Your task to perform on an android device: set the stopwatch Image 0: 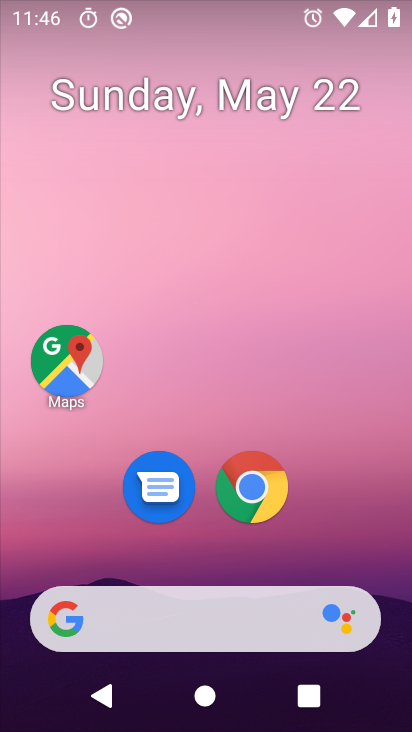
Step 0: drag from (337, 513) to (340, 238)
Your task to perform on an android device: set the stopwatch Image 1: 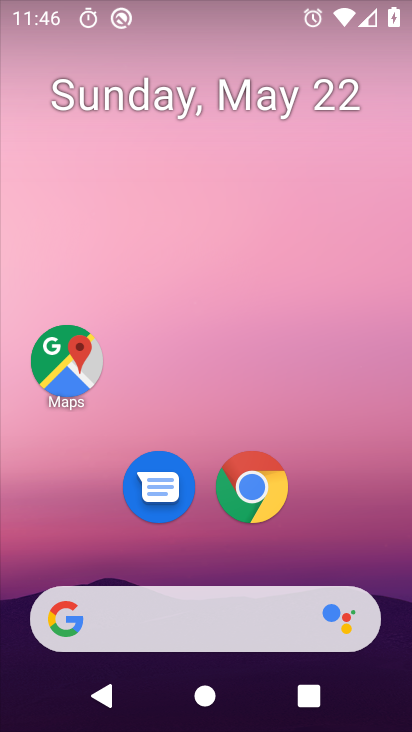
Step 1: drag from (331, 547) to (322, 182)
Your task to perform on an android device: set the stopwatch Image 2: 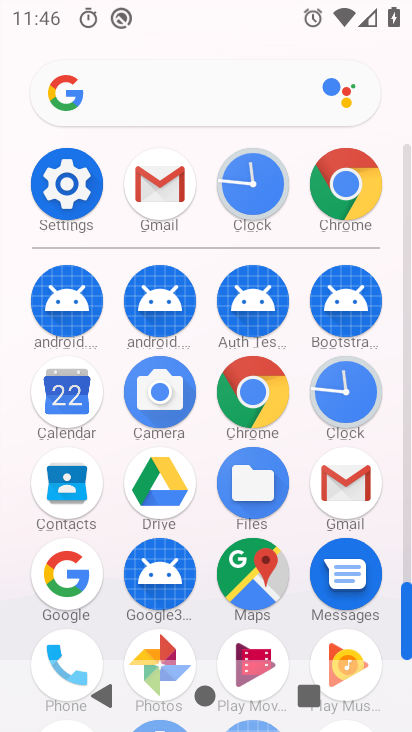
Step 2: click (350, 411)
Your task to perform on an android device: set the stopwatch Image 3: 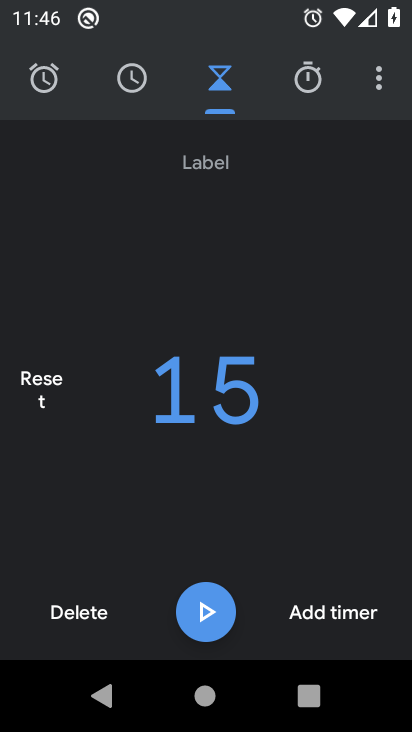
Step 3: click (290, 97)
Your task to perform on an android device: set the stopwatch Image 4: 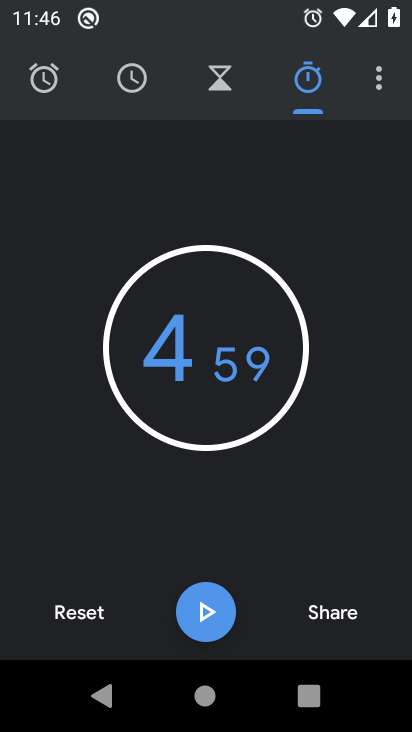
Step 4: task complete